Your task to perform on an android device: set default search engine in the chrome app Image 0: 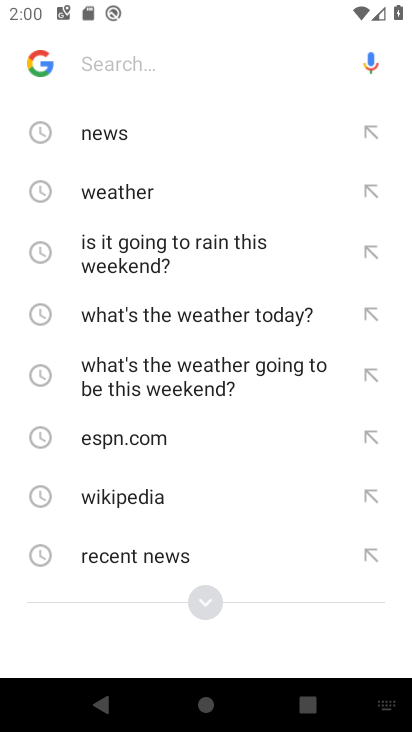
Step 0: press home button
Your task to perform on an android device: set default search engine in the chrome app Image 1: 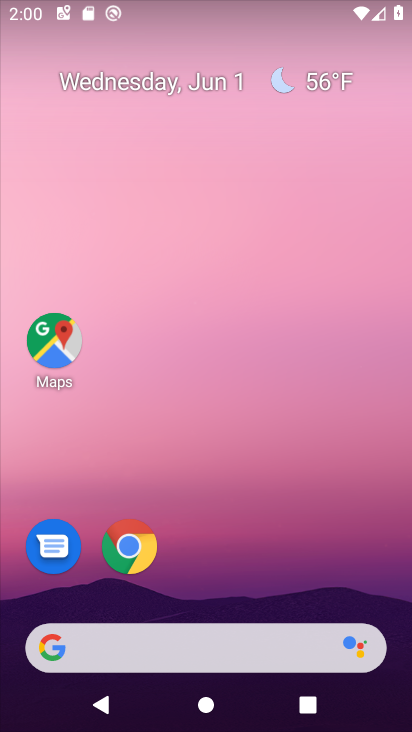
Step 1: click (113, 546)
Your task to perform on an android device: set default search engine in the chrome app Image 2: 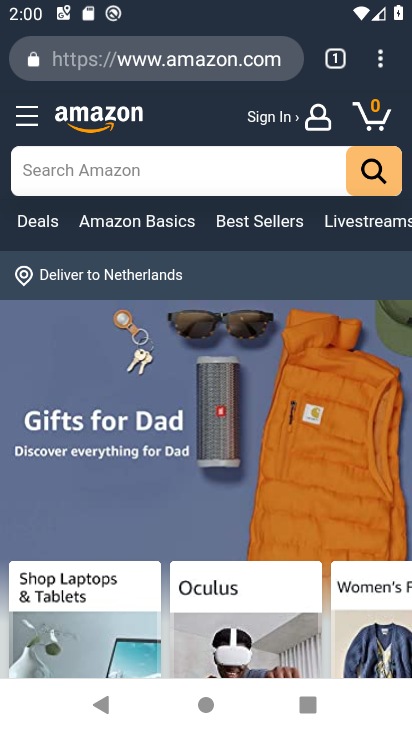
Step 2: click (387, 51)
Your task to perform on an android device: set default search engine in the chrome app Image 3: 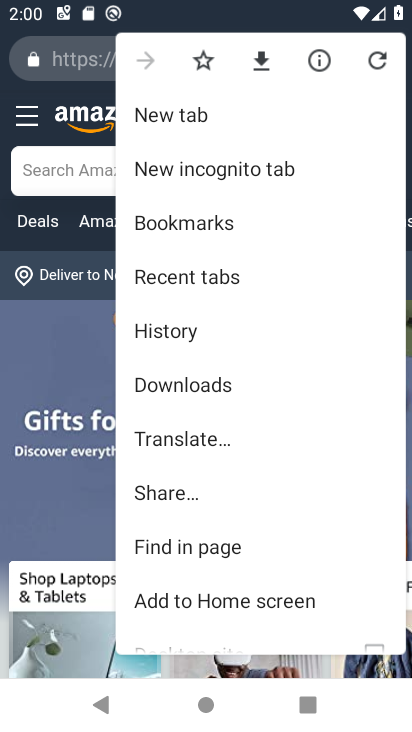
Step 3: drag from (210, 563) to (229, 292)
Your task to perform on an android device: set default search engine in the chrome app Image 4: 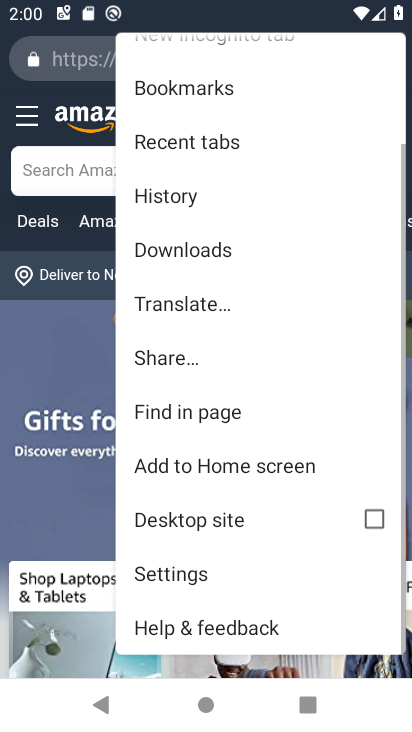
Step 4: click (162, 580)
Your task to perform on an android device: set default search engine in the chrome app Image 5: 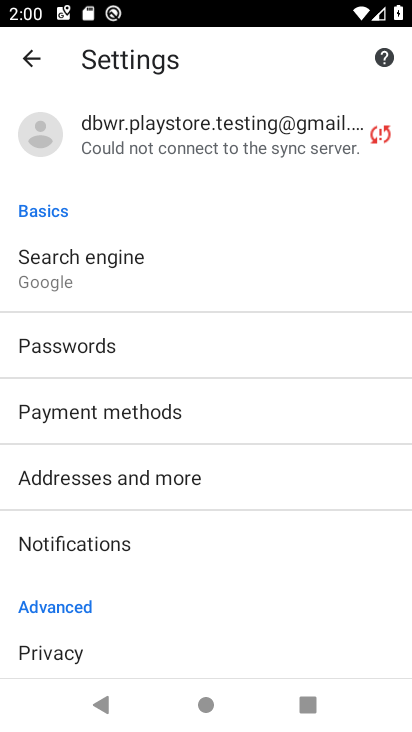
Step 5: click (133, 259)
Your task to perform on an android device: set default search engine in the chrome app Image 6: 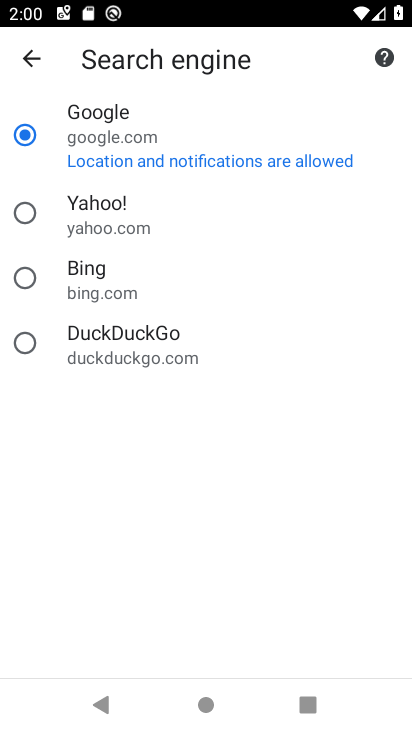
Step 6: click (127, 212)
Your task to perform on an android device: set default search engine in the chrome app Image 7: 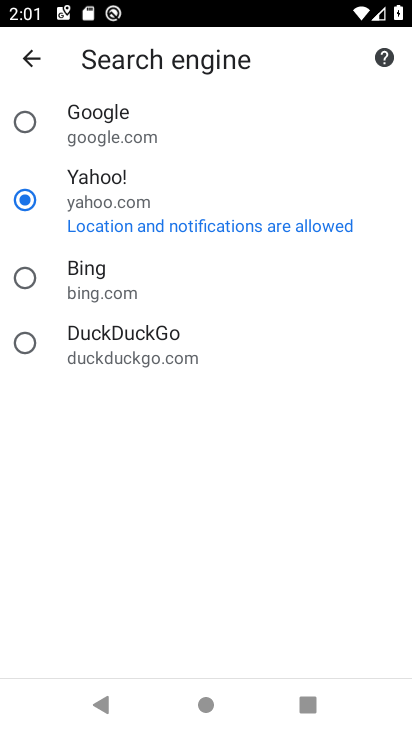
Step 7: task complete